Your task to perform on an android device: What's on my calendar tomorrow? Image 0: 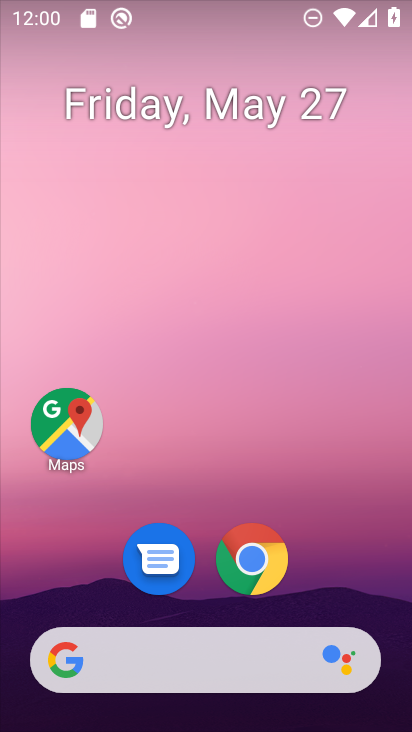
Step 0: drag from (300, 509) to (327, 95)
Your task to perform on an android device: What's on my calendar tomorrow? Image 1: 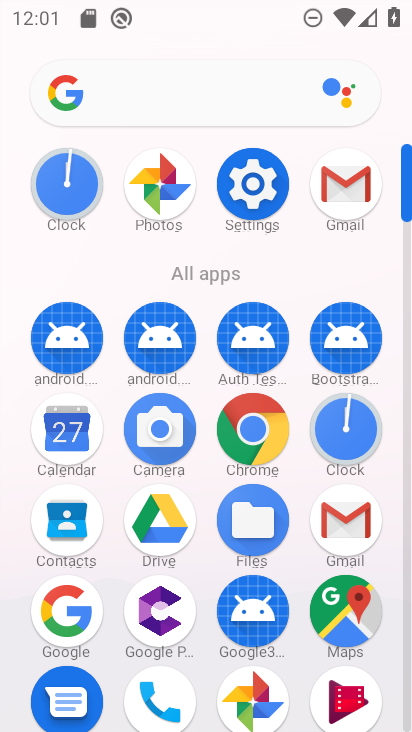
Step 1: click (64, 455)
Your task to perform on an android device: What's on my calendar tomorrow? Image 2: 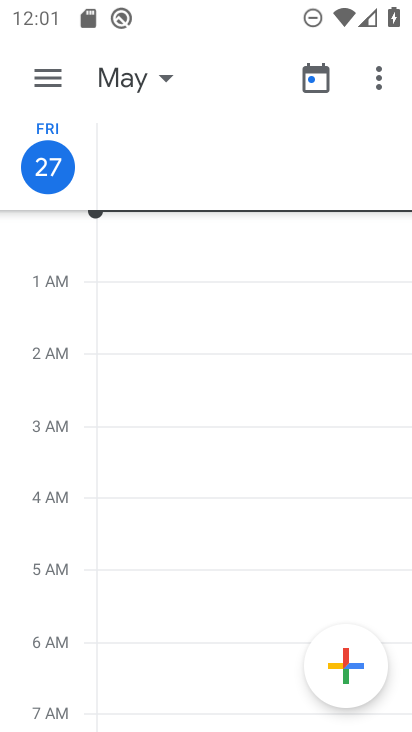
Step 2: click (56, 74)
Your task to perform on an android device: What's on my calendar tomorrow? Image 3: 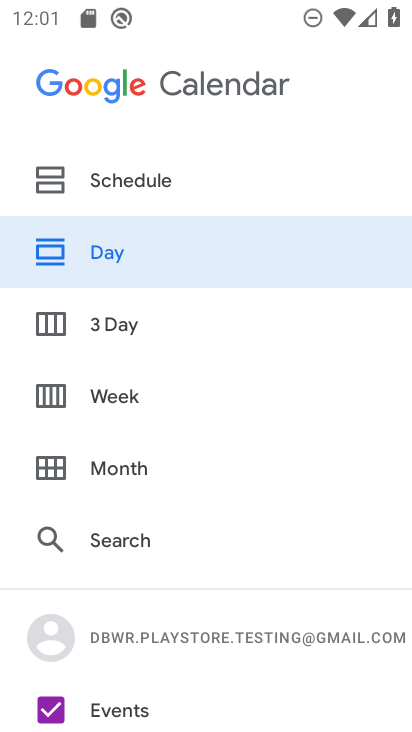
Step 3: click (103, 489)
Your task to perform on an android device: What's on my calendar tomorrow? Image 4: 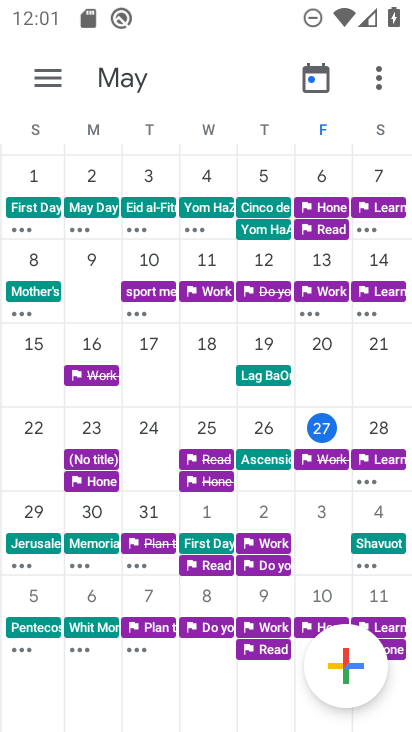
Step 4: click (379, 431)
Your task to perform on an android device: What's on my calendar tomorrow? Image 5: 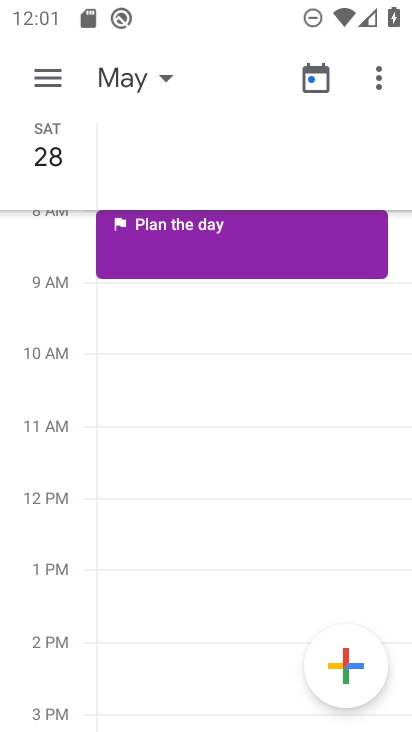
Step 5: task complete